Your task to perform on an android device: clear all cookies in the chrome app Image 0: 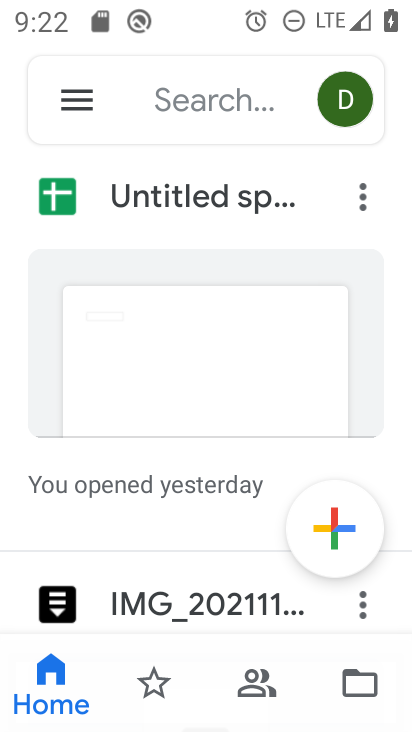
Step 0: press home button
Your task to perform on an android device: clear all cookies in the chrome app Image 1: 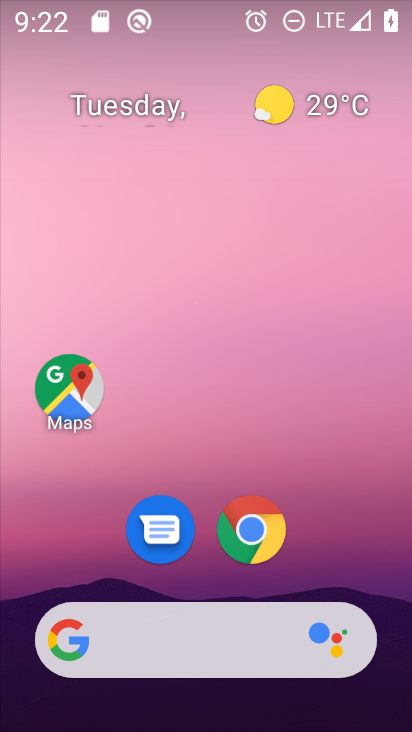
Step 1: drag from (388, 644) to (282, 56)
Your task to perform on an android device: clear all cookies in the chrome app Image 2: 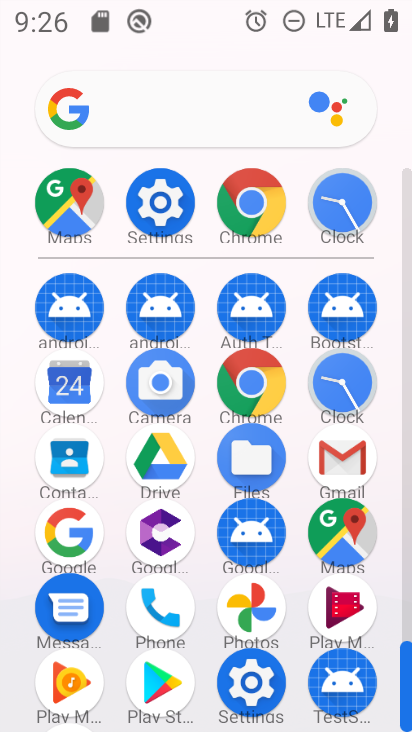
Step 2: click (263, 375)
Your task to perform on an android device: clear all cookies in the chrome app Image 3: 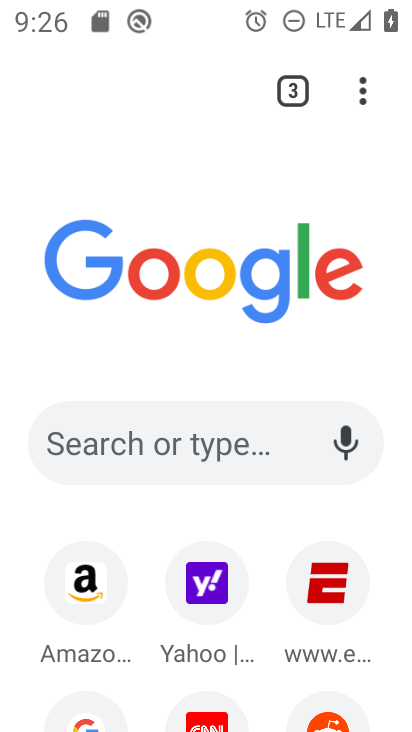
Step 3: click (371, 83)
Your task to perform on an android device: clear all cookies in the chrome app Image 4: 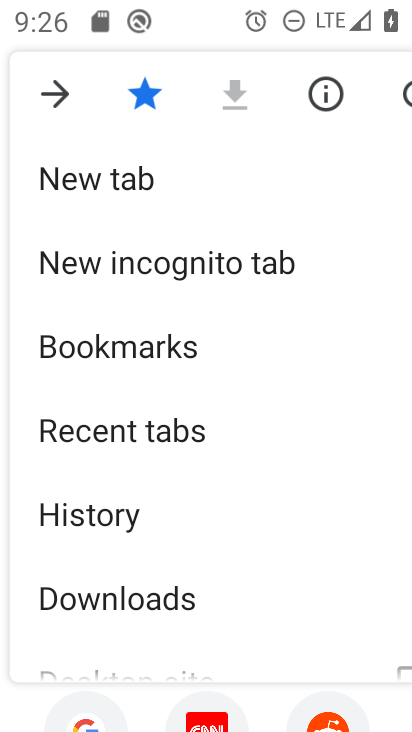
Step 4: click (166, 534)
Your task to perform on an android device: clear all cookies in the chrome app Image 5: 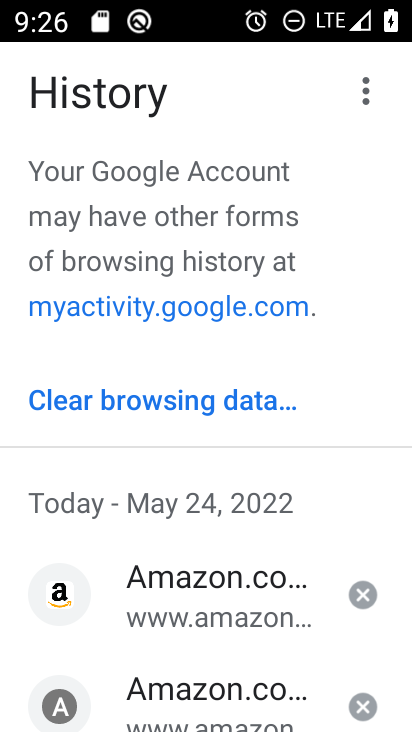
Step 5: click (183, 416)
Your task to perform on an android device: clear all cookies in the chrome app Image 6: 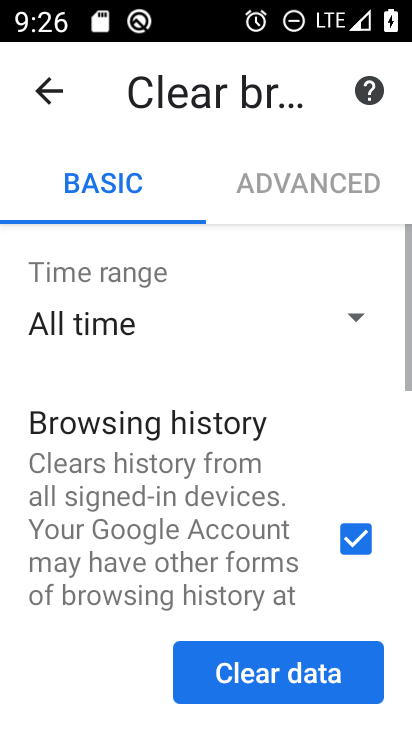
Step 6: click (287, 654)
Your task to perform on an android device: clear all cookies in the chrome app Image 7: 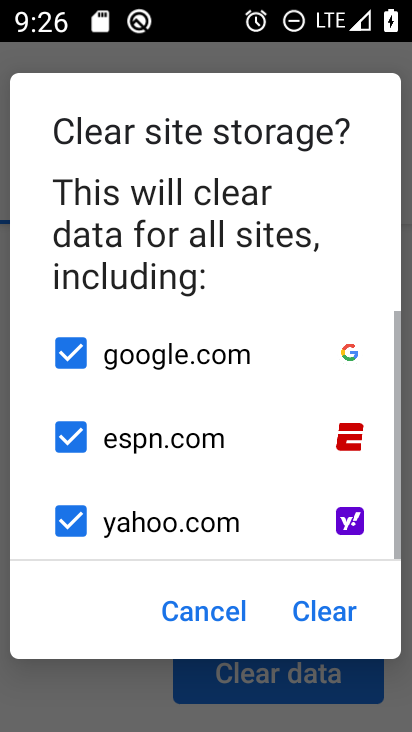
Step 7: click (337, 613)
Your task to perform on an android device: clear all cookies in the chrome app Image 8: 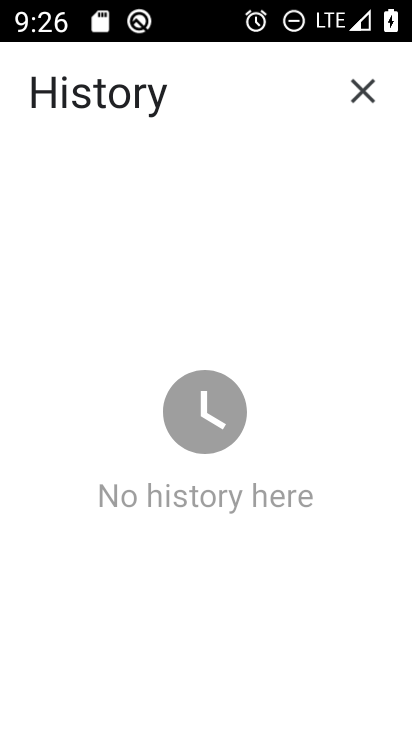
Step 8: task complete